Your task to perform on an android device: turn off improve location accuracy Image 0: 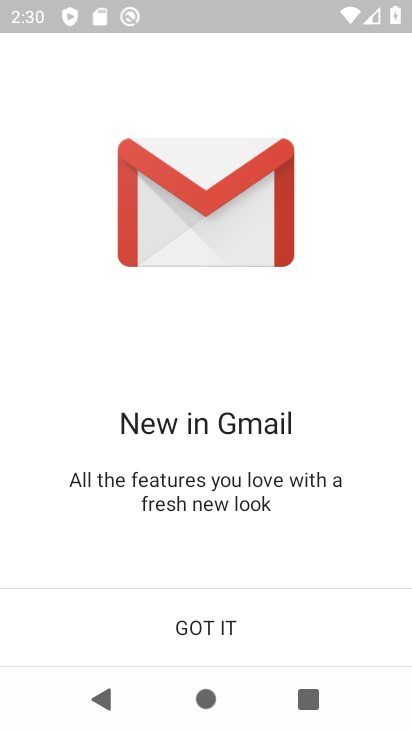
Step 0: press home button
Your task to perform on an android device: turn off improve location accuracy Image 1: 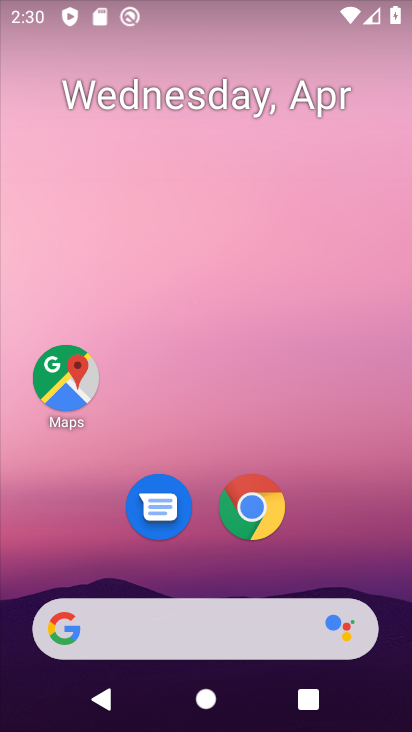
Step 1: drag from (338, 575) to (181, 238)
Your task to perform on an android device: turn off improve location accuracy Image 2: 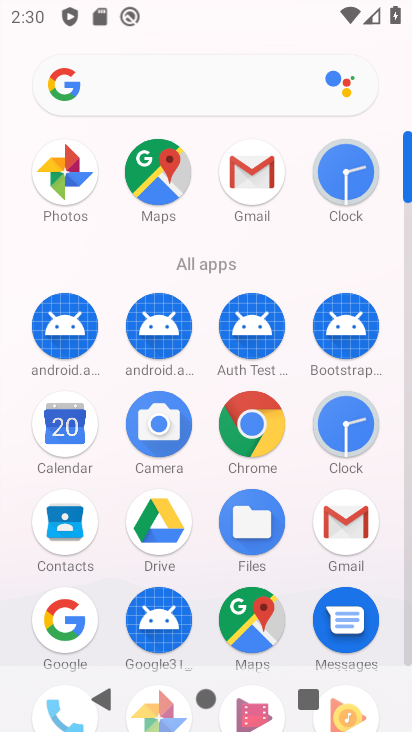
Step 2: drag from (206, 635) to (192, 269)
Your task to perform on an android device: turn off improve location accuracy Image 3: 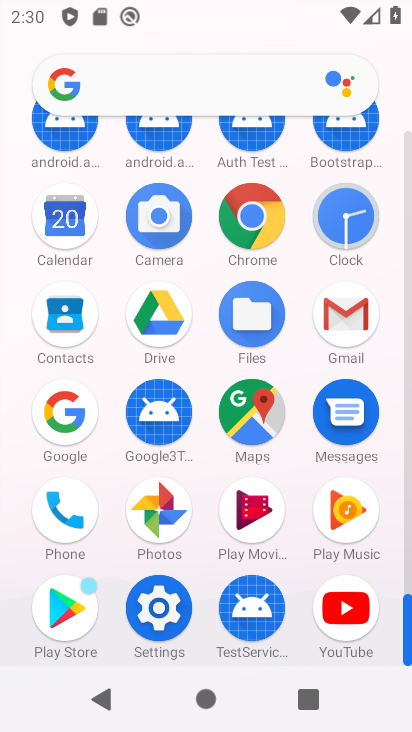
Step 3: click (136, 606)
Your task to perform on an android device: turn off improve location accuracy Image 4: 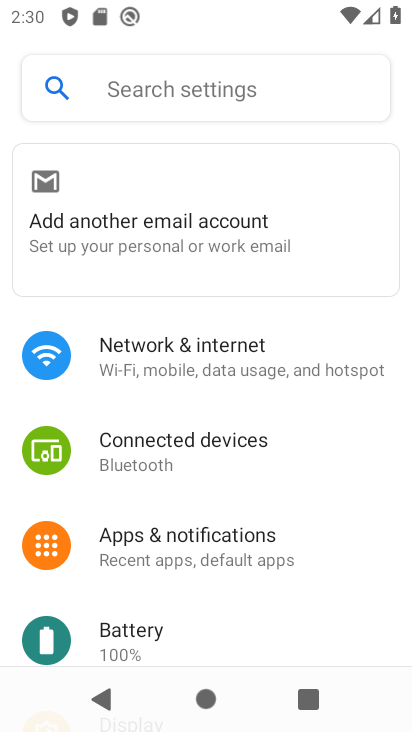
Step 4: drag from (162, 643) to (151, 278)
Your task to perform on an android device: turn off improve location accuracy Image 5: 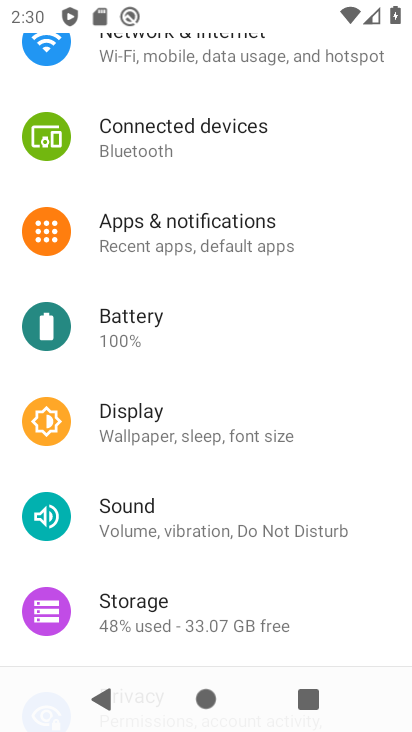
Step 5: drag from (130, 553) to (88, 262)
Your task to perform on an android device: turn off improve location accuracy Image 6: 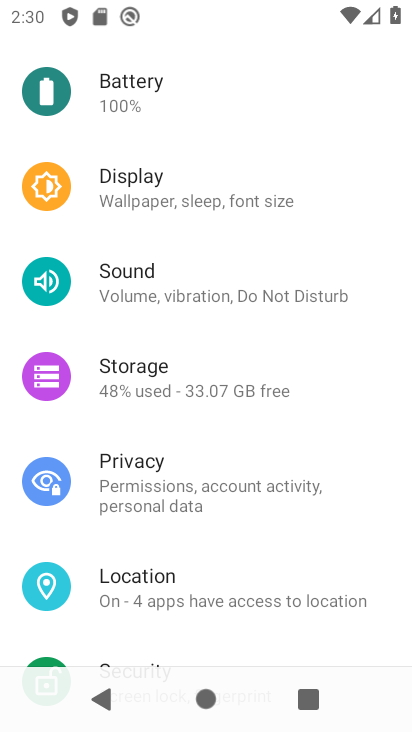
Step 6: click (139, 579)
Your task to perform on an android device: turn off improve location accuracy Image 7: 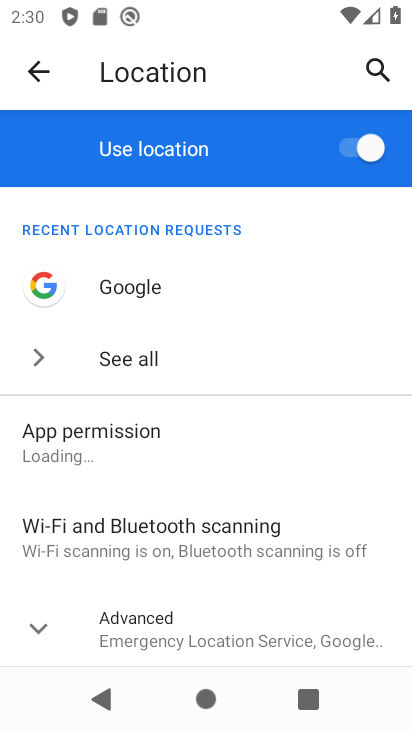
Step 7: click (123, 624)
Your task to perform on an android device: turn off improve location accuracy Image 8: 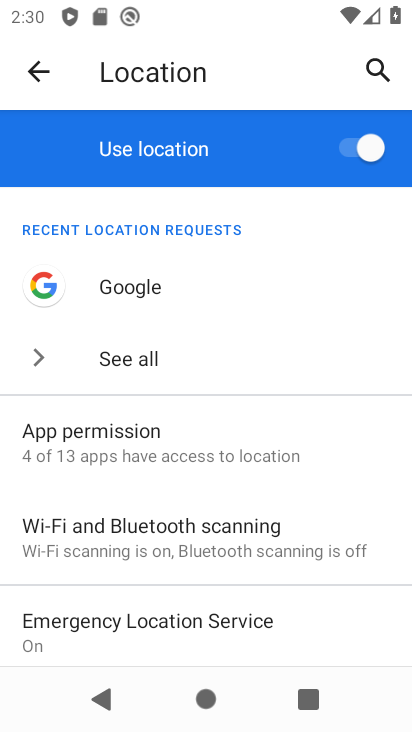
Step 8: drag from (125, 624) to (109, 269)
Your task to perform on an android device: turn off improve location accuracy Image 9: 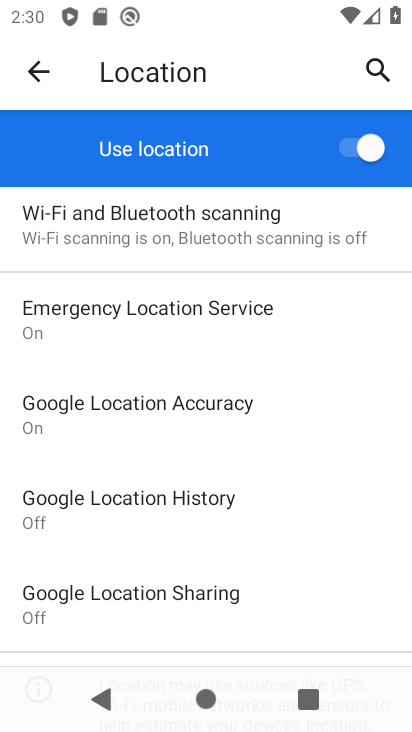
Step 9: click (40, 422)
Your task to perform on an android device: turn off improve location accuracy Image 10: 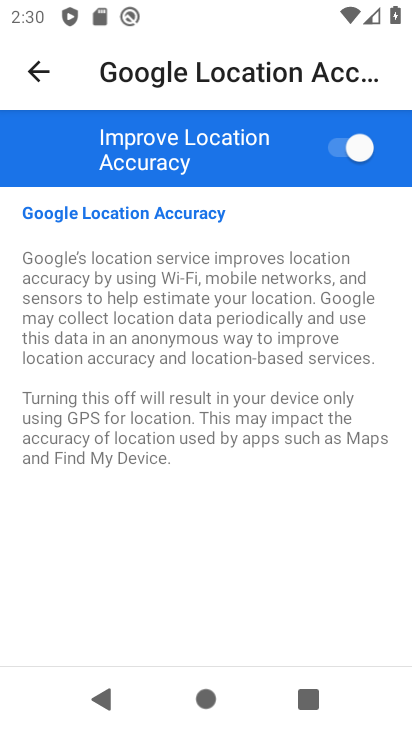
Step 10: click (350, 151)
Your task to perform on an android device: turn off improve location accuracy Image 11: 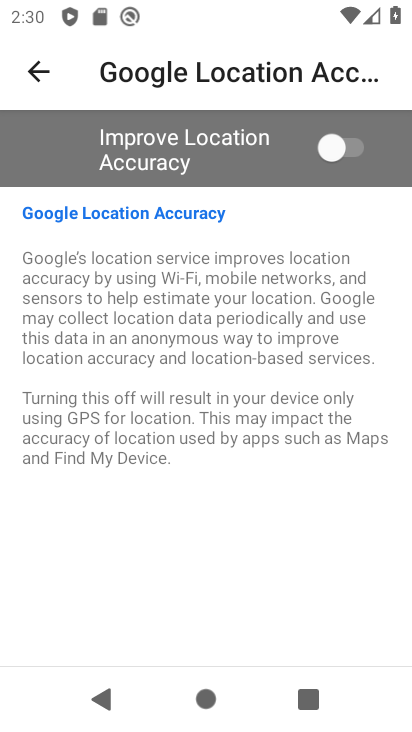
Step 11: task complete